Your task to perform on an android device: Open Google Image 0: 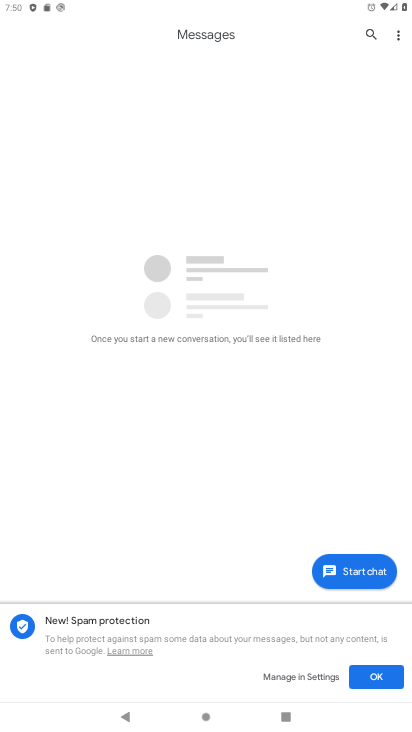
Step 0: press home button
Your task to perform on an android device: Open Google Image 1: 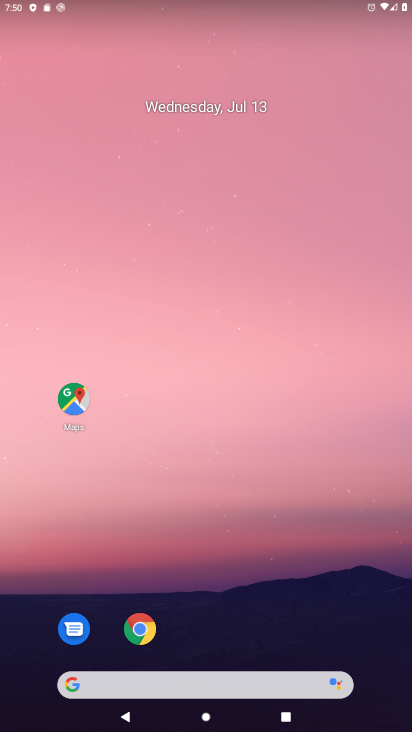
Step 1: click (101, 677)
Your task to perform on an android device: Open Google Image 2: 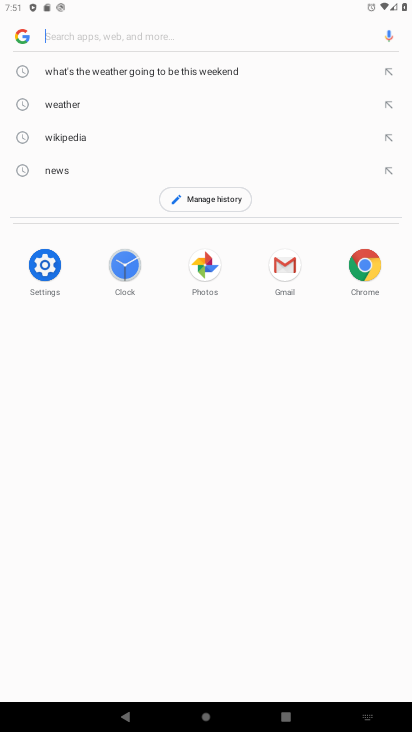
Step 2: task complete